Your task to perform on an android device: Go to settings Image 0: 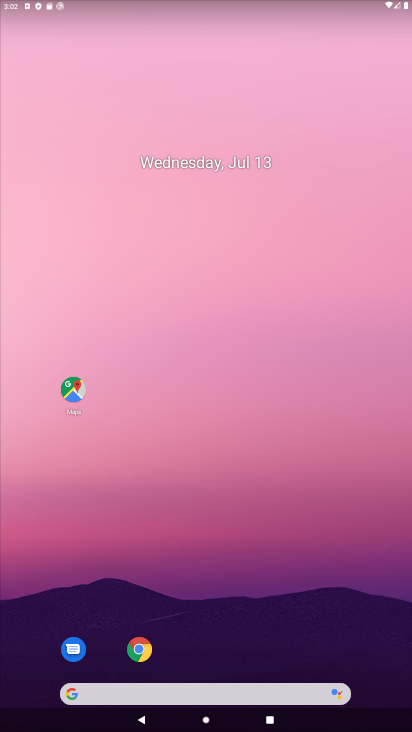
Step 0: press home button
Your task to perform on an android device: Go to settings Image 1: 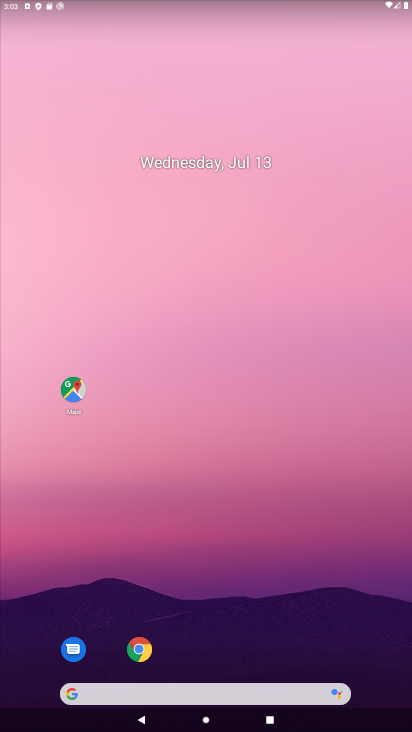
Step 1: drag from (198, 659) to (205, 4)
Your task to perform on an android device: Go to settings Image 2: 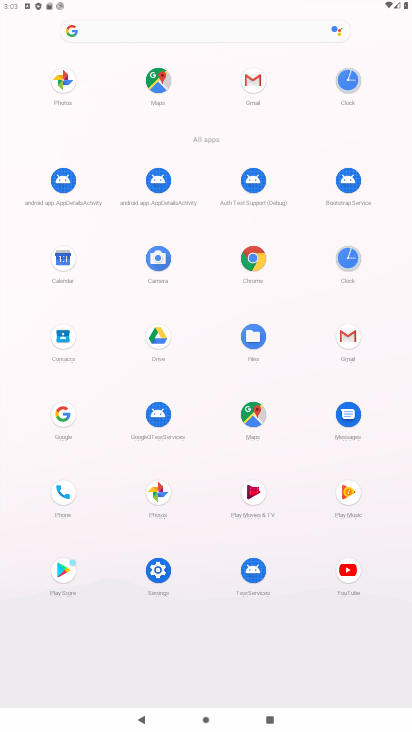
Step 2: click (155, 565)
Your task to perform on an android device: Go to settings Image 3: 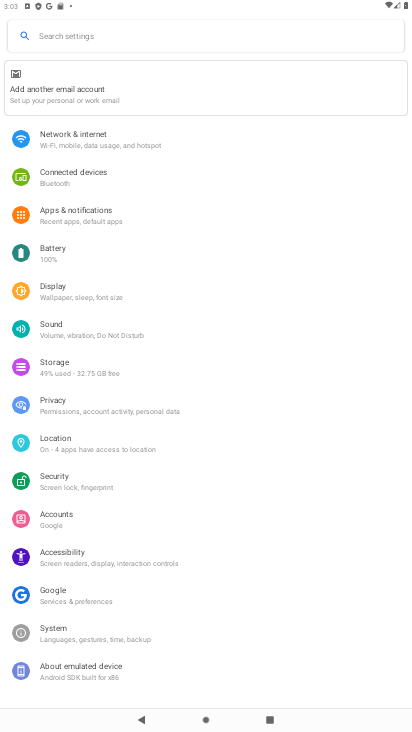
Step 3: task complete